Your task to perform on an android device: Set the phone to "Do not disturb". Image 0: 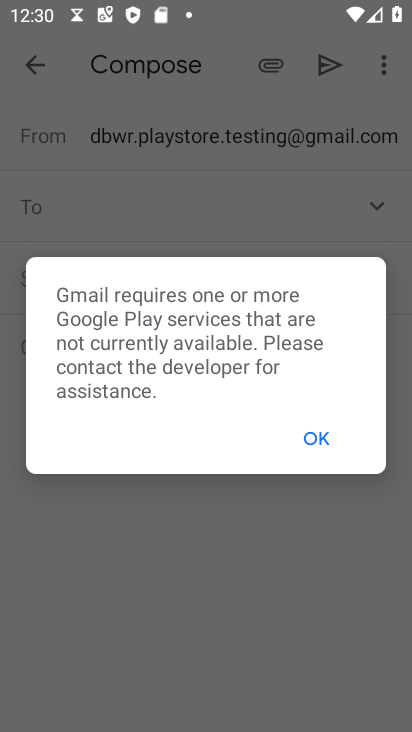
Step 0: press home button
Your task to perform on an android device: Set the phone to "Do not disturb". Image 1: 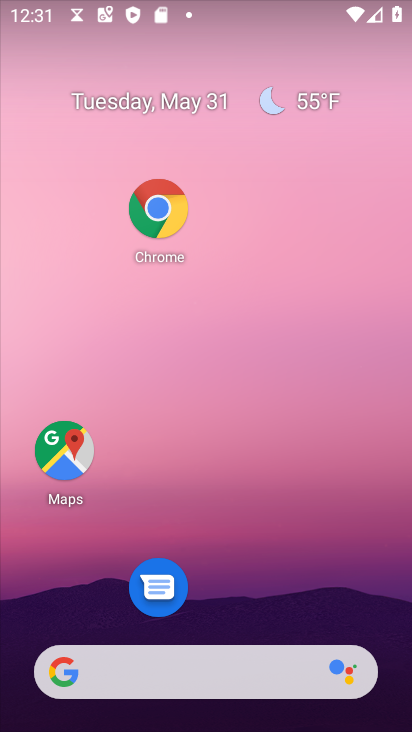
Step 1: drag from (291, 633) to (243, 289)
Your task to perform on an android device: Set the phone to "Do not disturb". Image 2: 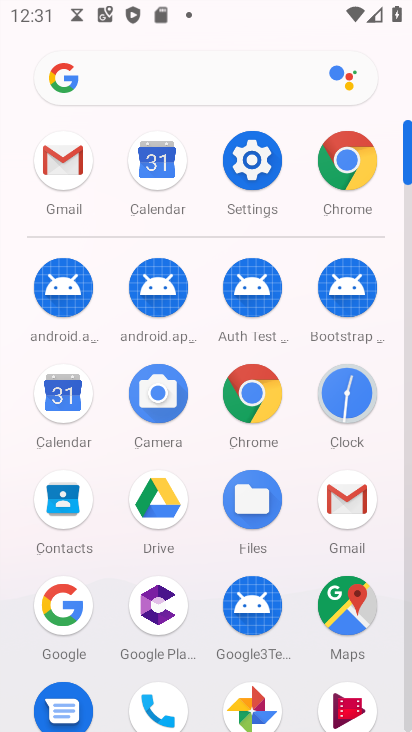
Step 2: click (259, 177)
Your task to perform on an android device: Set the phone to "Do not disturb". Image 3: 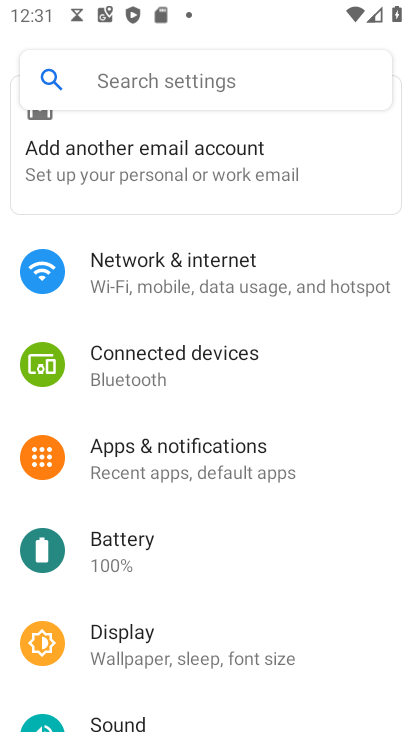
Step 3: drag from (184, 669) to (185, 430)
Your task to perform on an android device: Set the phone to "Do not disturb". Image 4: 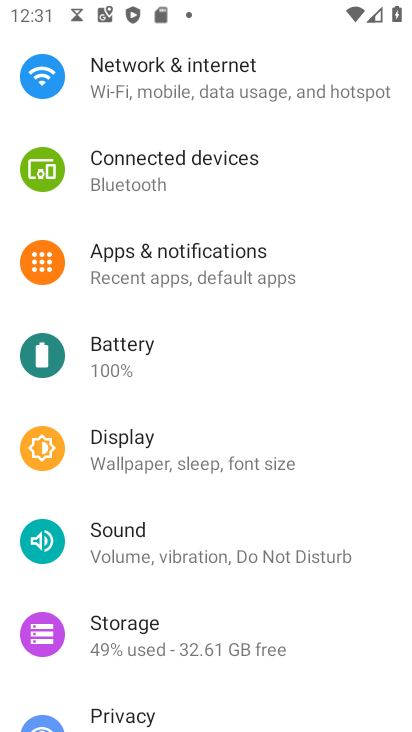
Step 4: click (173, 550)
Your task to perform on an android device: Set the phone to "Do not disturb". Image 5: 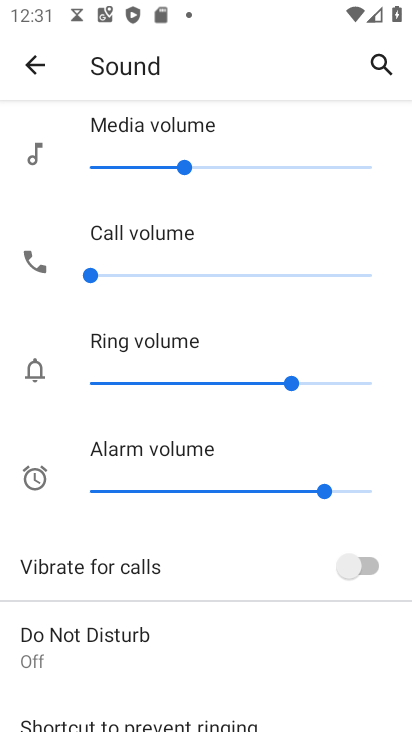
Step 5: click (118, 660)
Your task to perform on an android device: Set the phone to "Do not disturb". Image 6: 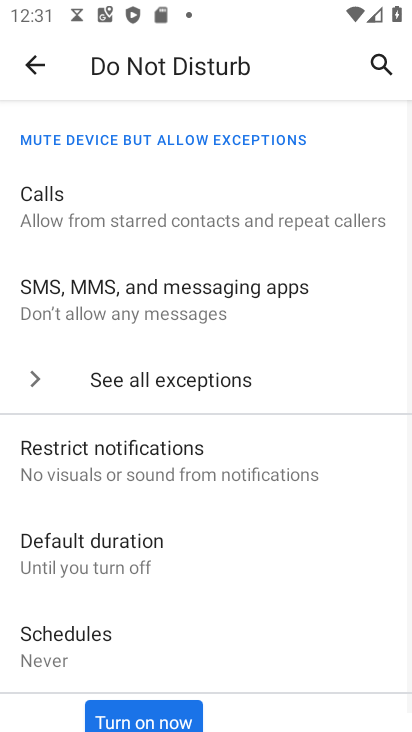
Step 6: click (107, 713)
Your task to perform on an android device: Set the phone to "Do not disturb". Image 7: 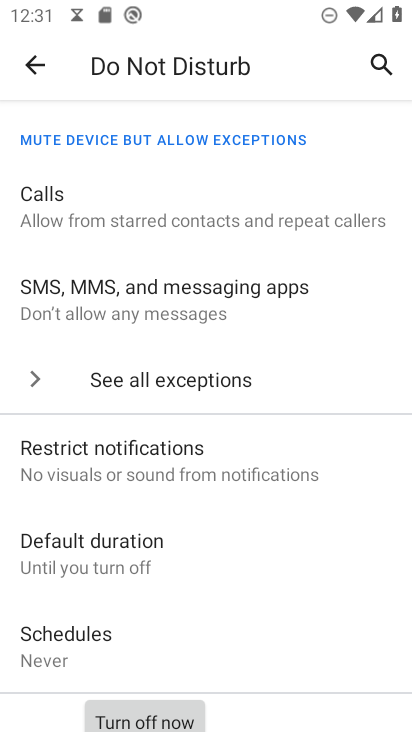
Step 7: task complete